Your task to perform on an android device: turn off picture-in-picture Image 0: 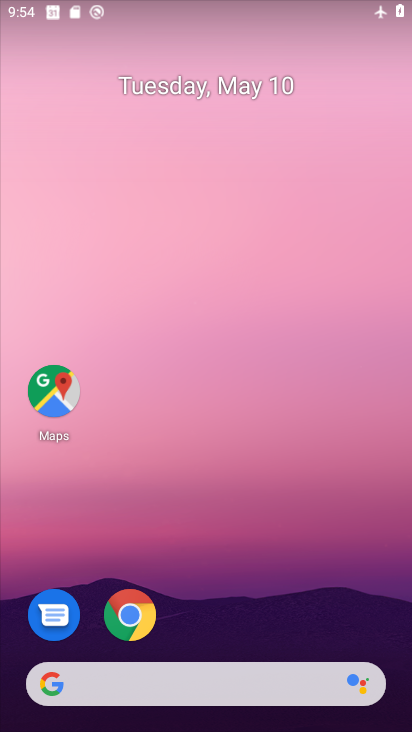
Step 0: click (280, 85)
Your task to perform on an android device: turn off picture-in-picture Image 1: 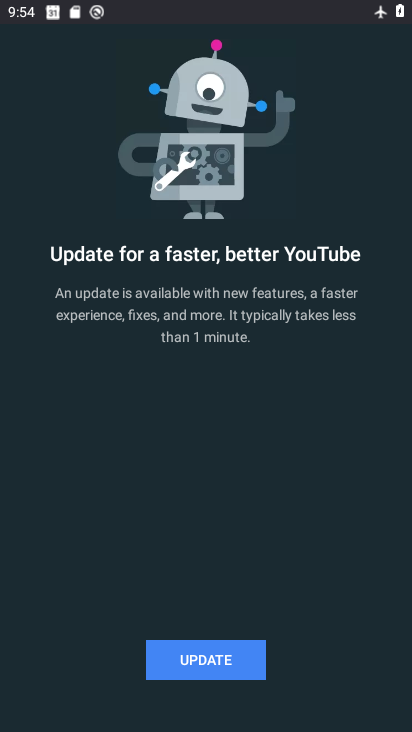
Step 1: drag from (199, 621) to (405, 110)
Your task to perform on an android device: turn off picture-in-picture Image 2: 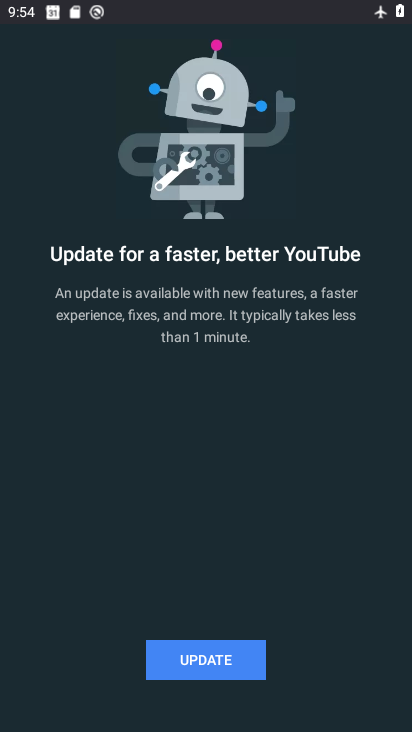
Step 2: press home button
Your task to perform on an android device: turn off picture-in-picture Image 3: 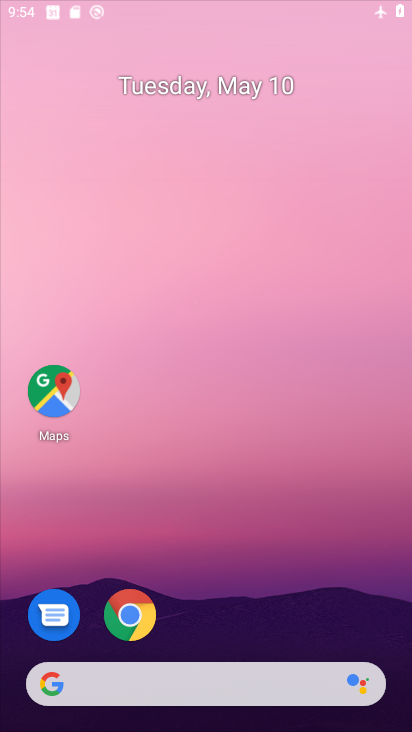
Step 3: drag from (220, 556) to (337, 100)
Your task to perform on an android device: turn off picture-in-picture Image 4: 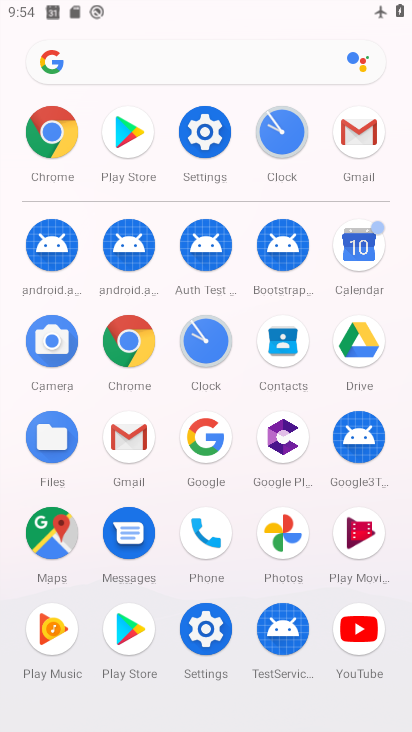
Step 4: click (209, 133)
Your task to perform on an android device: turn off picture-in-picture Image 5: 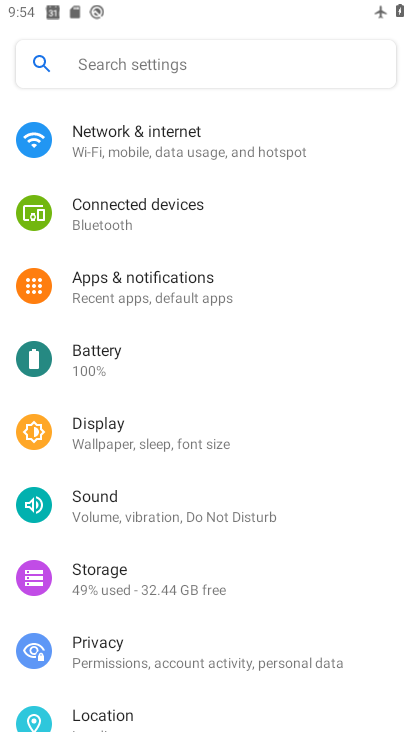
Step 5: drag from (214, 550) to (247, 29)
Your task to perform on an android device: turn off picture-in-picture Image 6: 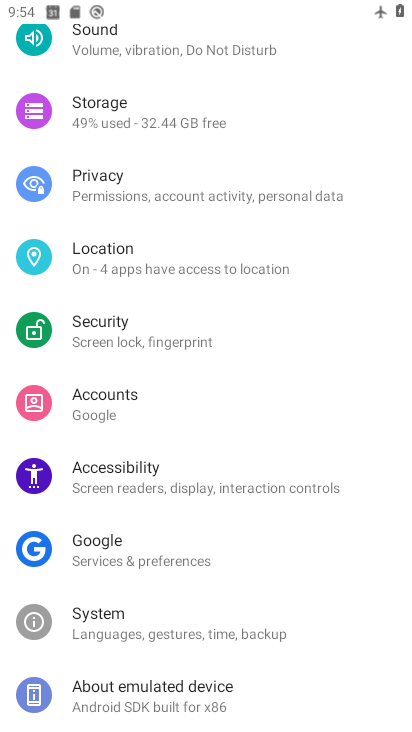
Step 6: drag from (159, 175) to (257, 697)
Your task to perform on an android device: turn off picture-in-picture Image 7: 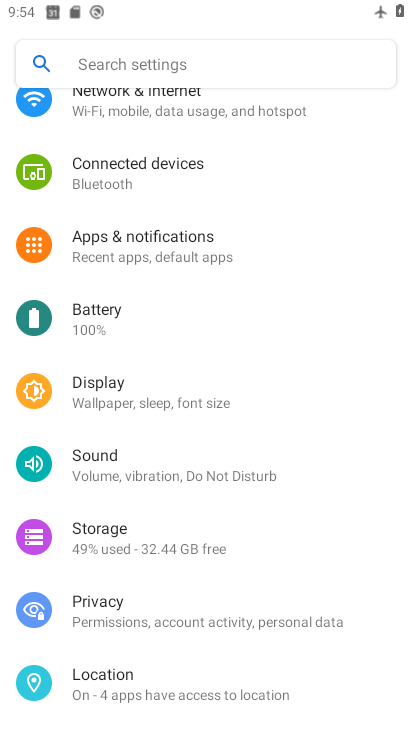
Step 7: click (146, 272)
Your task to perform on an android device: turn off picture-in-picture Image 8: 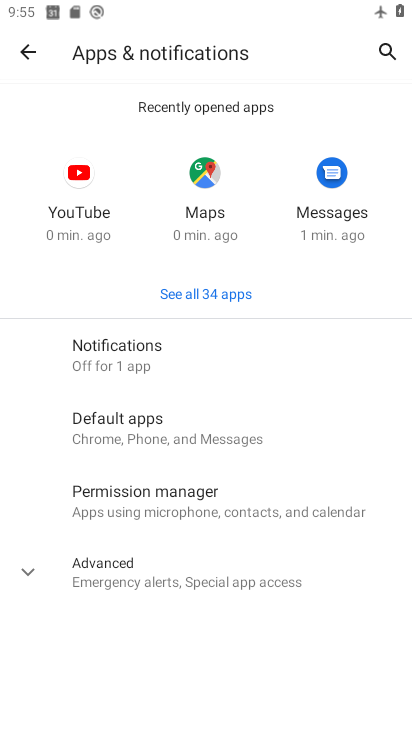
Step 8: click (115, 565)
Your task to perform on an android device: turn off picture-in-picture Image 9: 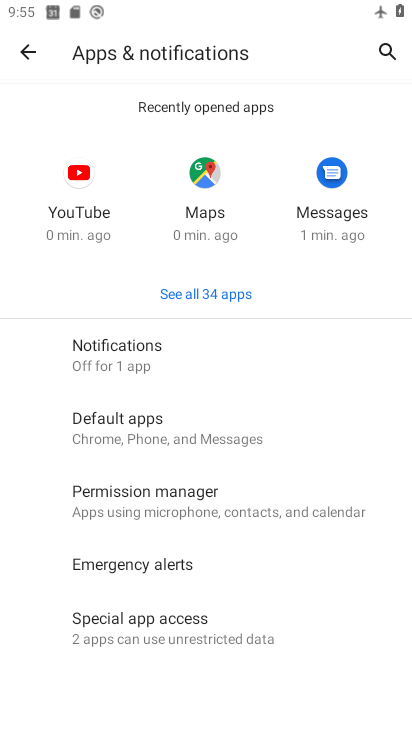
Step 9: click (172, 632)
Your task to perform on an android device: turn off picture-in-picture Image 10: 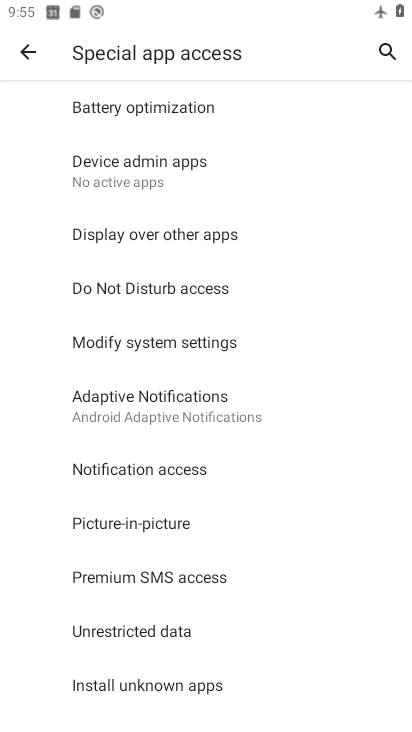
Step 10: drag from (161, 677) to (288, 303)
Your task to perform on an android device: turn off picture-in-picture Image 11: 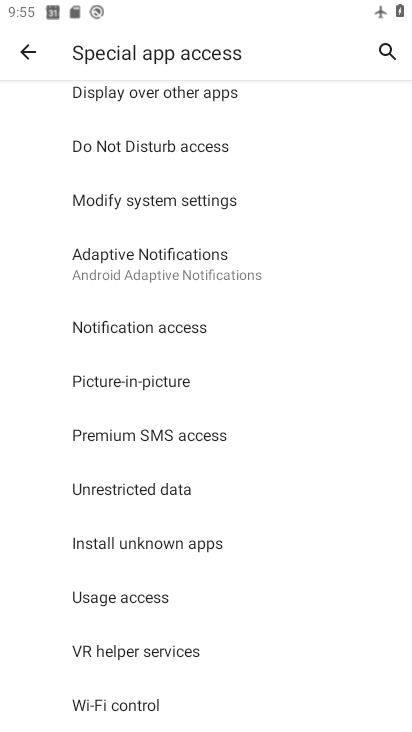
Step 11: click (183, 377)
Your task to perform on an android device: turn off picture-in-picture Image 12: 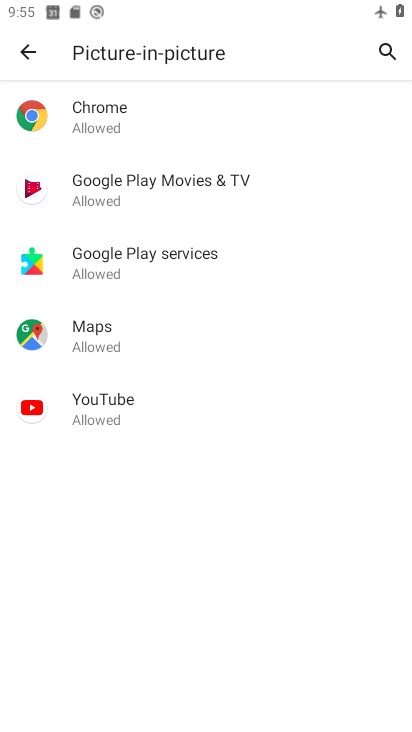
Step 12: click (142, 133)
Your task to perform on an android device: turn off picture-in-picture Image 13: 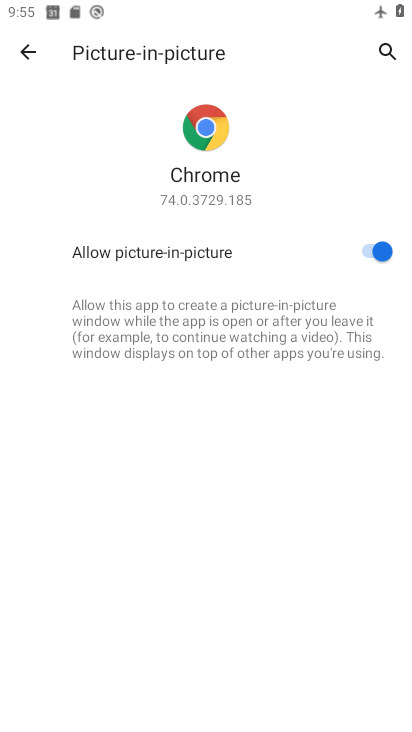
Step 13: click (344, 253)
Your task to perform on an android device: turn off picture-in-picture Image 14: 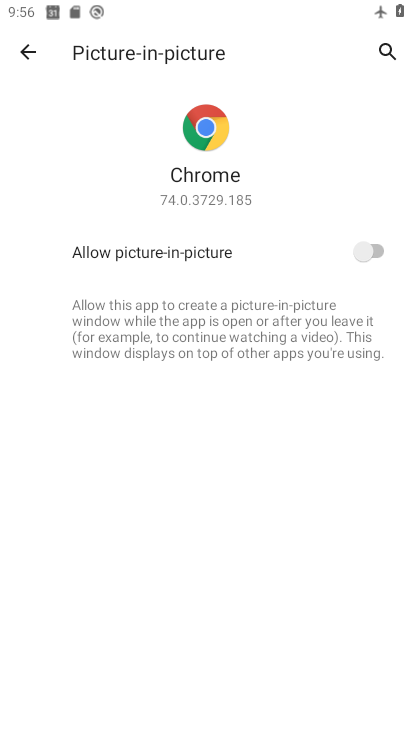
Step 14: task complete